Your task to perform on an android device: toggle sleep mode Image 0: 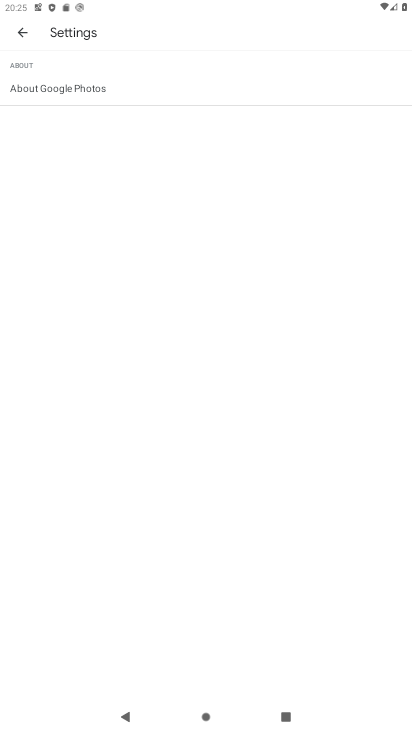
Step 0: press home button
Your task to perform on an android device: toggle sleep mode Image 1: 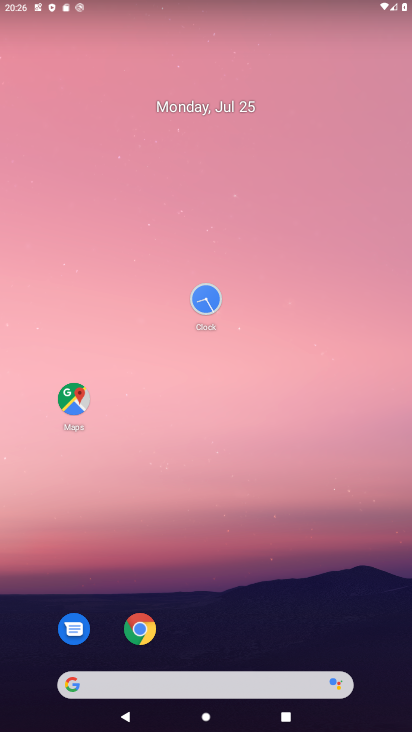
Step 1: drag from (197, 642) to (187, 20)
Your task to perform on an android device: toggle sleep mode Image 2: 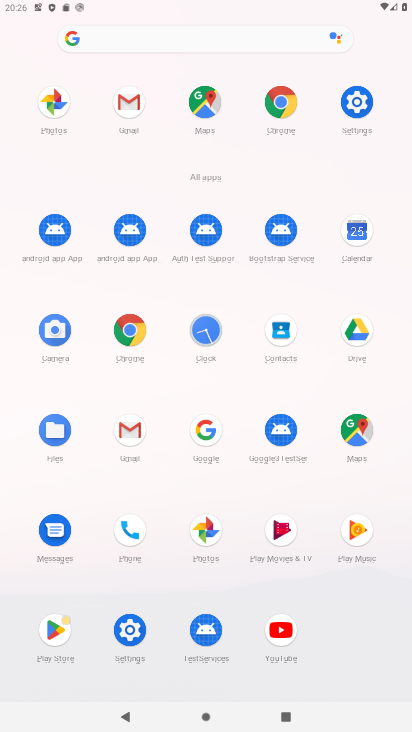
Step 2: click (126, 641)
Your task to perform on an android device: toggle sleep mode Image 3: 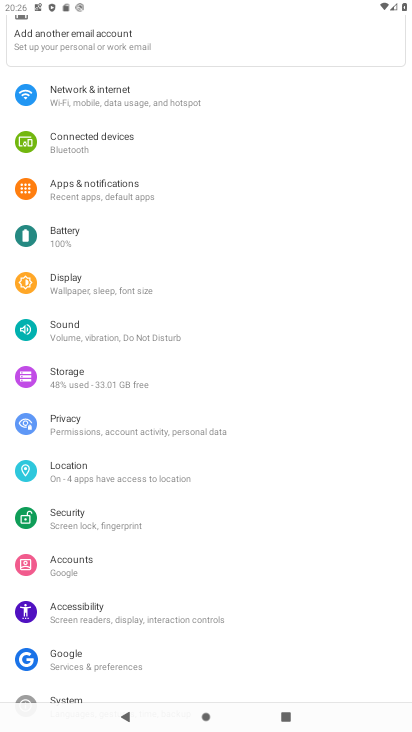
Step 3: drag from (204, 138) to (202, 490)
Your task to perform on an android device: toggle sleep mode Image 4: 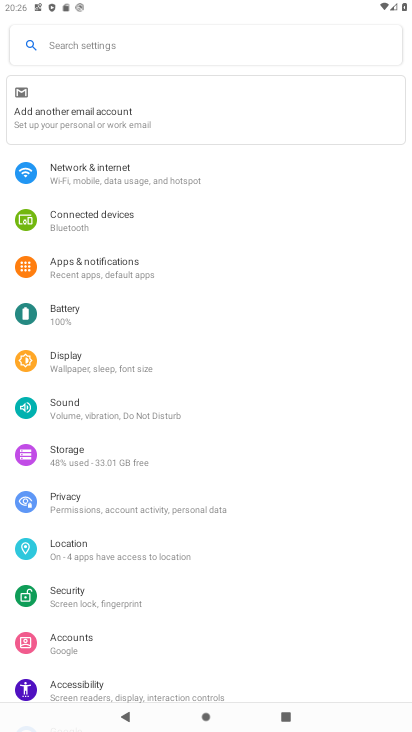
Step 4: click (189, 48)
Your task to perform on an android device: toggle sleep mode Image 5: 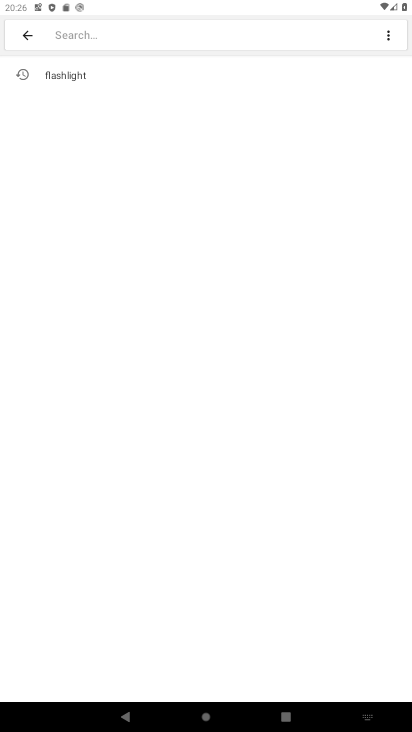
Step 5: type "sleep mode"
Your task to perform on an android device: toggle sleep mode Image 6: 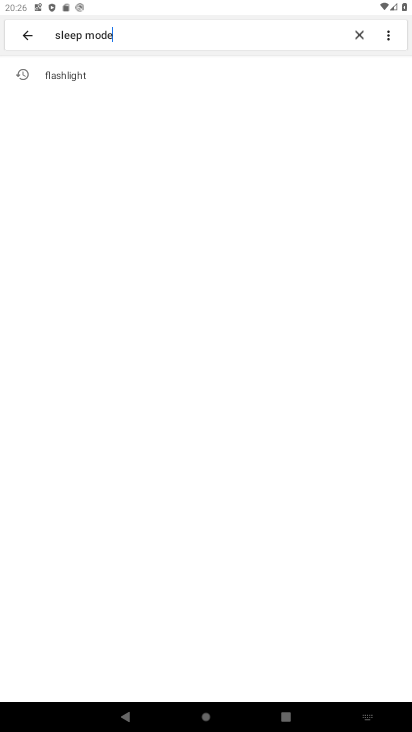
Step 6: click (163, 249)
Your task to perform on an android device: toggle sleep mode Image 7: 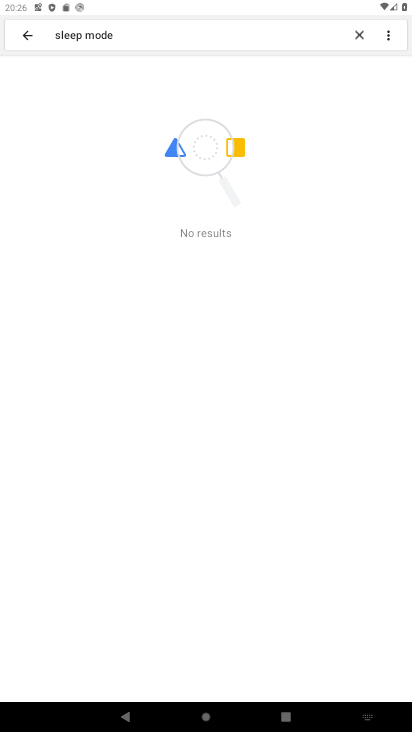
Step 7: task complete